Your task to perform on an android device: turn on showing notifications on the lock screen Image 0: 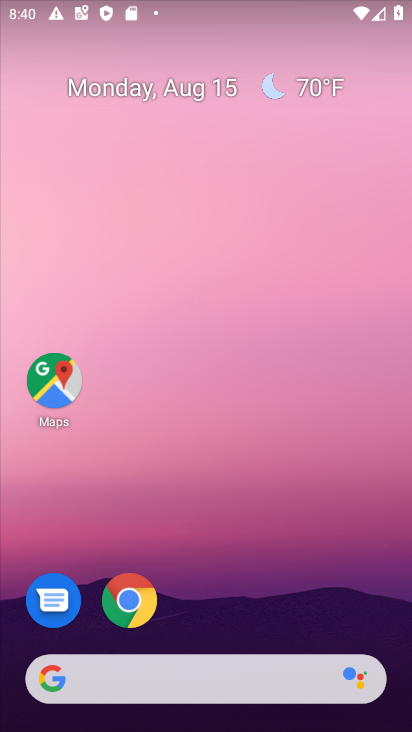
Step 0: drag from (225, 638) to (183, 31)
Your task to perform on an android device: turn on showing notifications on the lock screen Image 1: 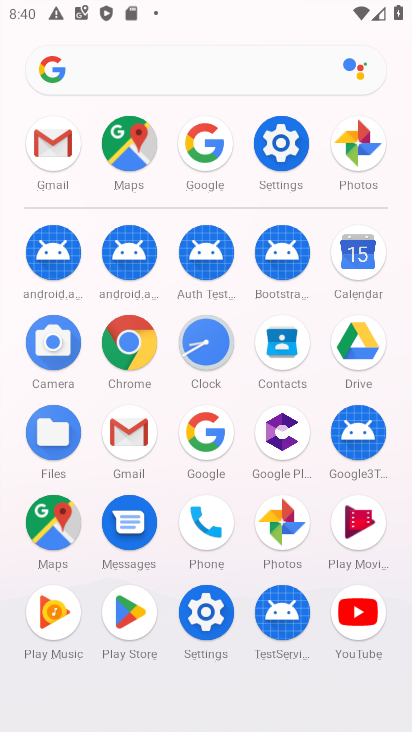
Step 1: click (211, 598)
Your task to perform on an android device: turn on showing notifications on the lock screen Image 2: 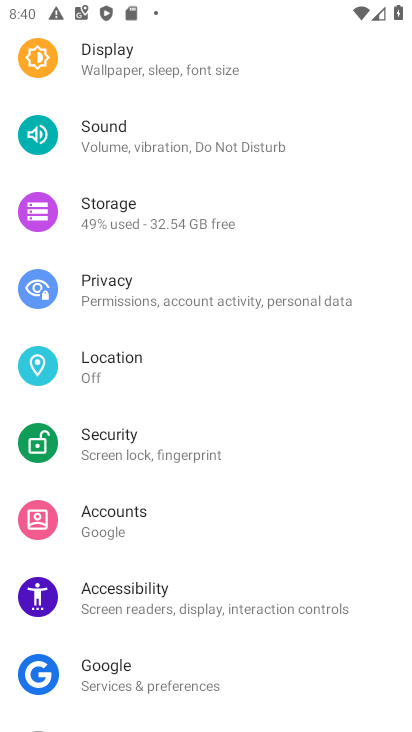
Step 2: drag from (151, 114) to (128, 609)
Your task to perform on an android device: turn on showing notifications on the lock screen Image 3: 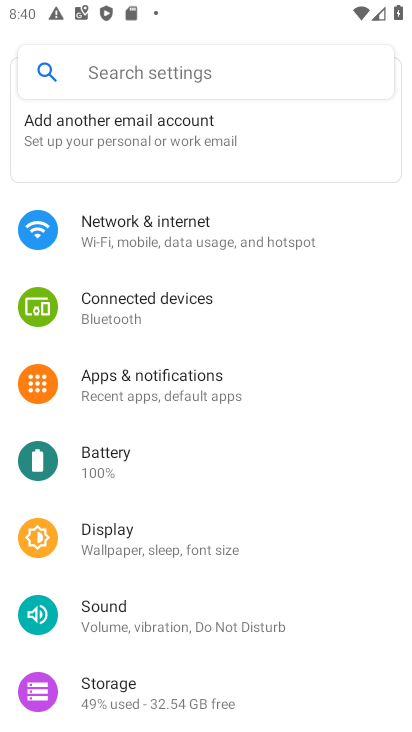
Step 3: click (152, 379)
Your task to perform on an android device: turn on showing notifications on the lock screen Image 4: 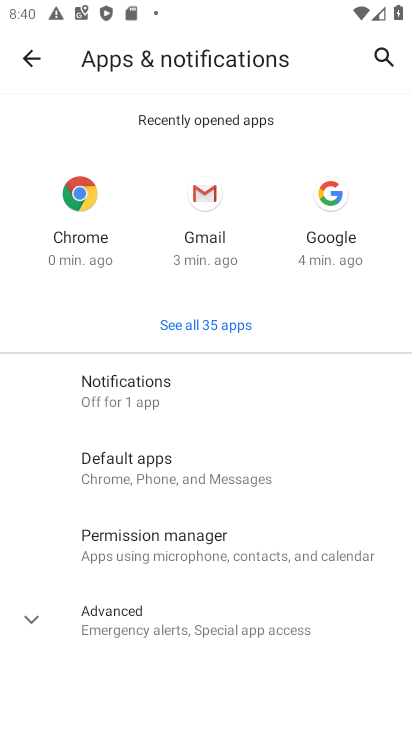
Step 4: click (119, 391)
Your task to perform on an android device: turn on showing notifications on the lock screen Image 5: 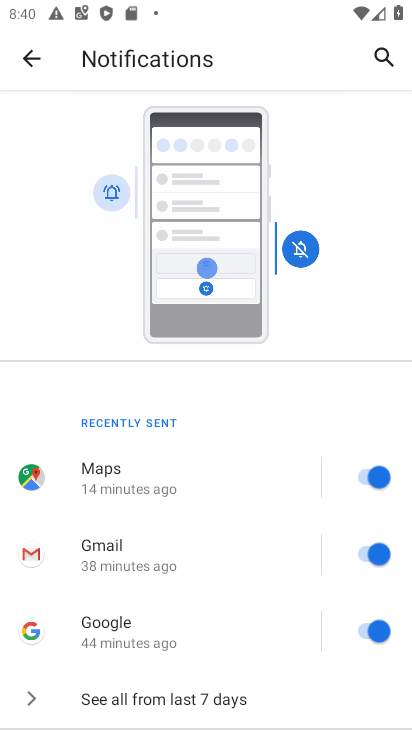
Step 5: task complete